Your task to perform on an android device: Go to Yahoo.com Image 0: 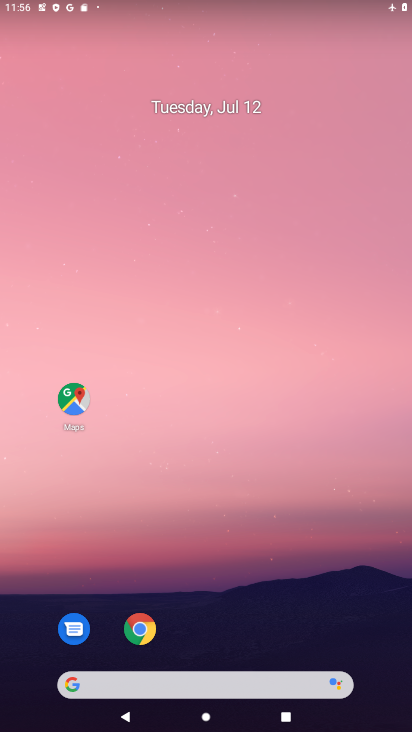
Step 0: drag from (171, 614) to (175, 295)
Your task to perform on an android device: Go to Yahoo.com Image 1: 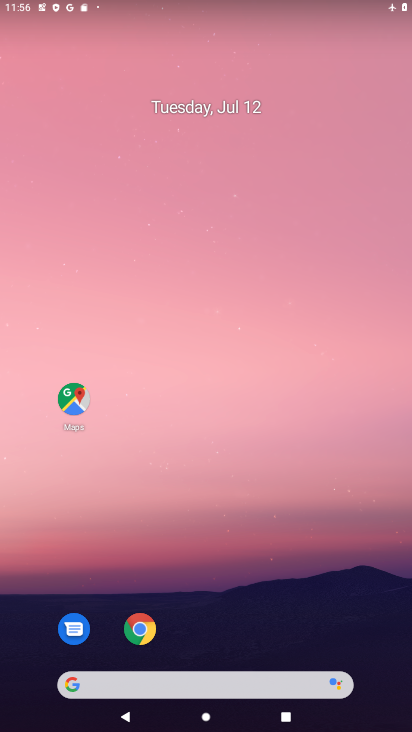
Step 1: drag from (246, 613) to (258, 285)
Your task to perform on an android device: Go to Yahoo.com Image 2: 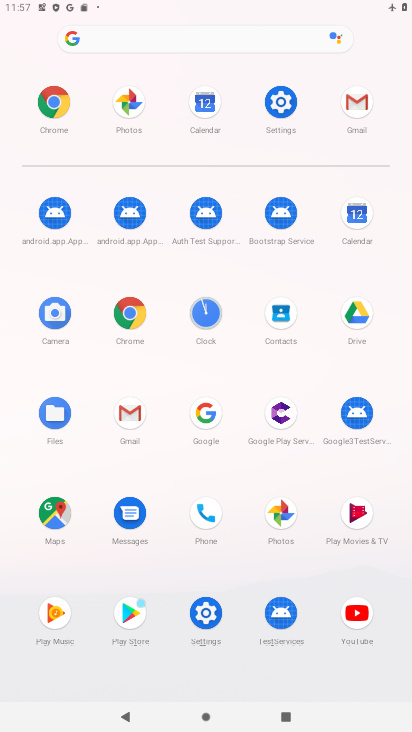
Step 2: click (121, 304)
Your task to perform on an android device: Go to Yahoo.com Image 3: 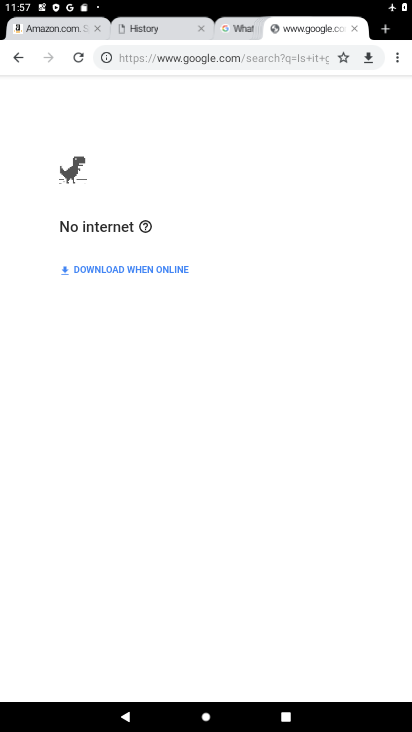
Step 3: click (393, 56)
Your task to perform on an android device: Go to Yahoo.com Image 4: 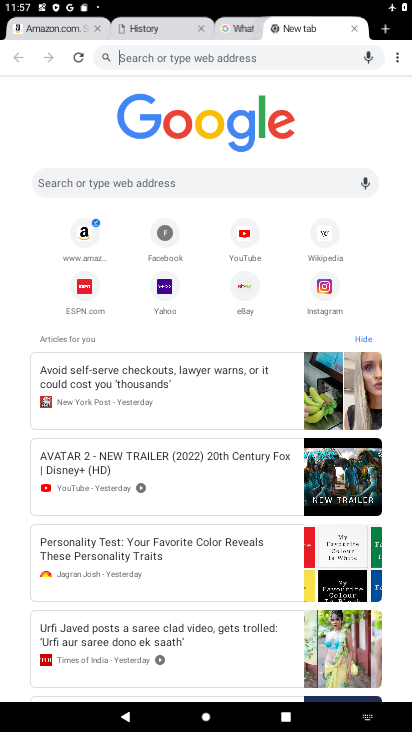
Step 4: click (167, 284)
Your task to perform on an android device: Go to Yahoo.com Image 5: 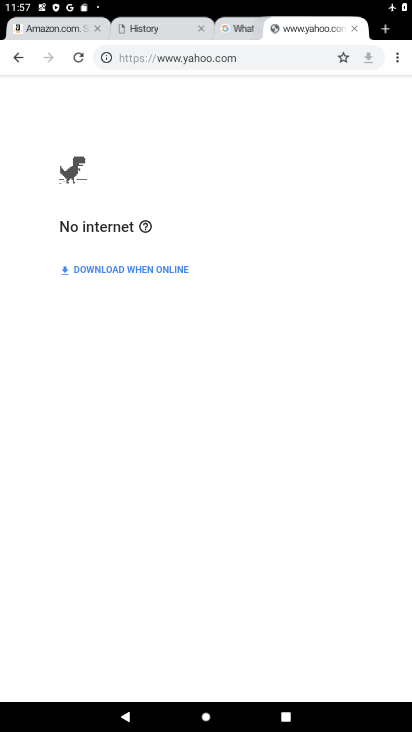
Step 5: task complete